Your task to perform on an android device: toggle wifi Image 0: 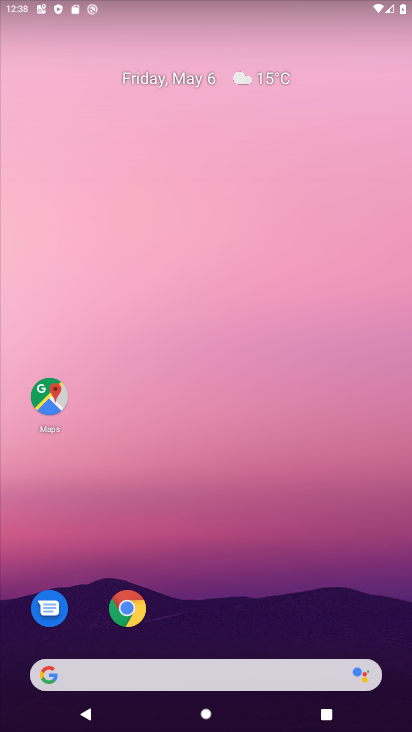
Step 0: click (377, 97)
Your task to perform on an android device: toggle wifi Image 1: 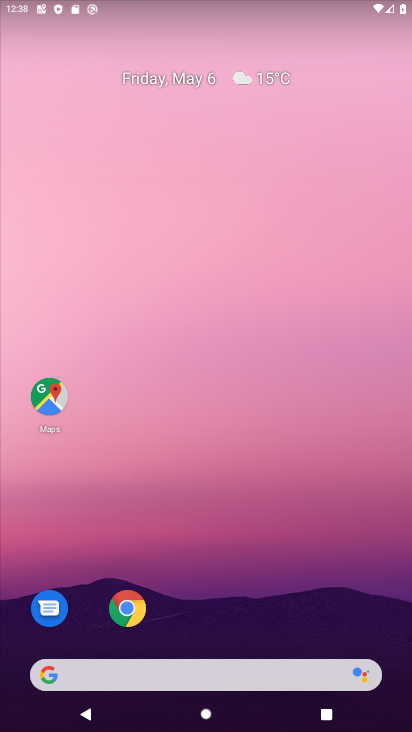
Step 1: drag from (182, 301) to (225, 53)
Your task to perform on an android device: toggle wifi Image 2: 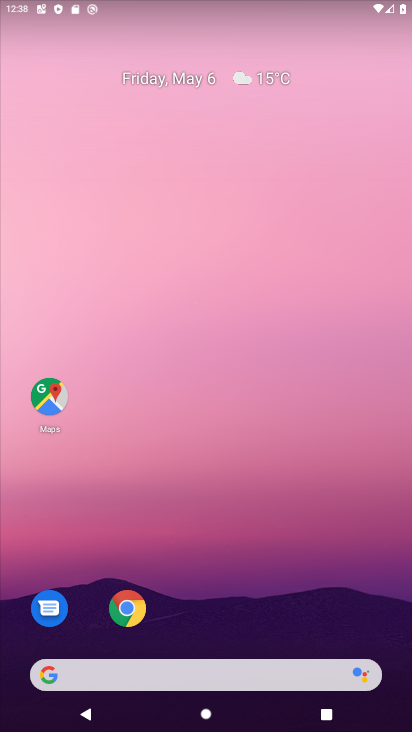
Step 2: drag from (192, 603) to (228, 144)
Your task to perform on an android device: toggle wifi Image 3: 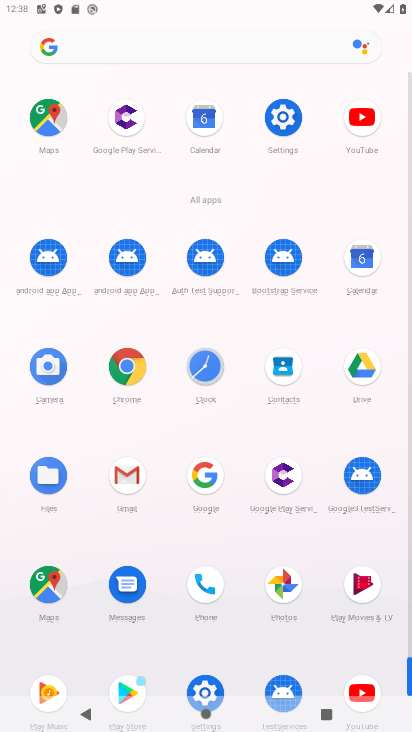
Step 3: click (283, 112)
Your task to perform on an android device: toggle wifi Image 4: 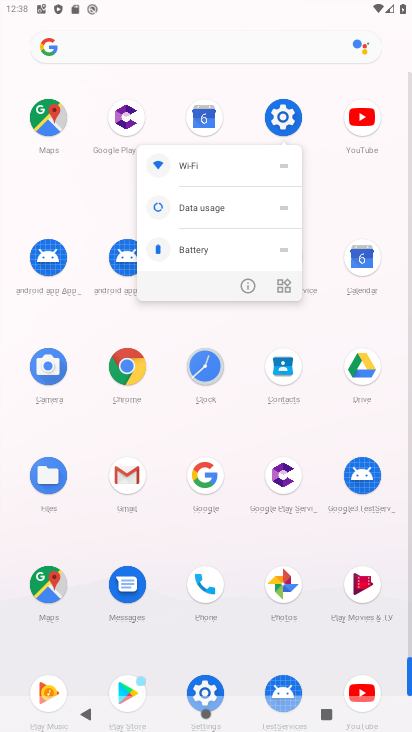
Step 4: click (193, 162)
Your task to perform on an android device: toggle wifi Image 5: 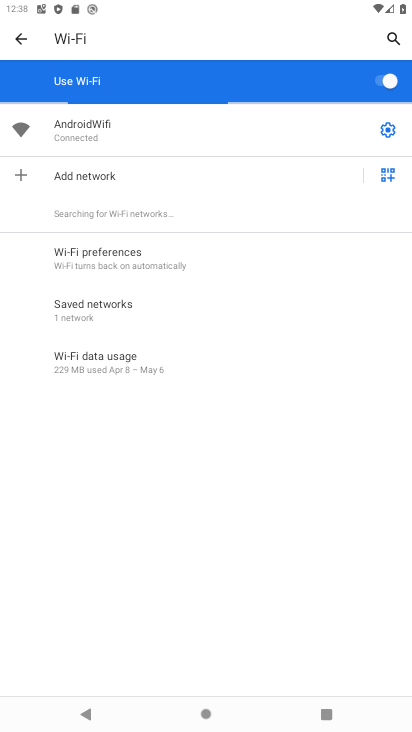
Step 5: click (375, 87)
Your task to perform on an android device: toggle wifi Image 6: 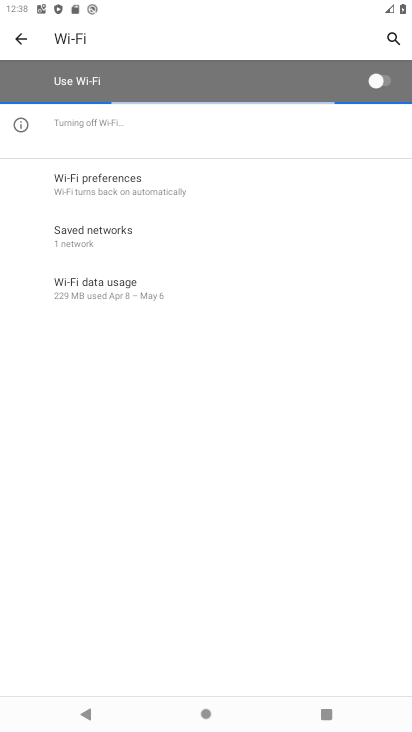
Step 6: task complete